Your task to perform on an android device: Open internet settings Image 0: 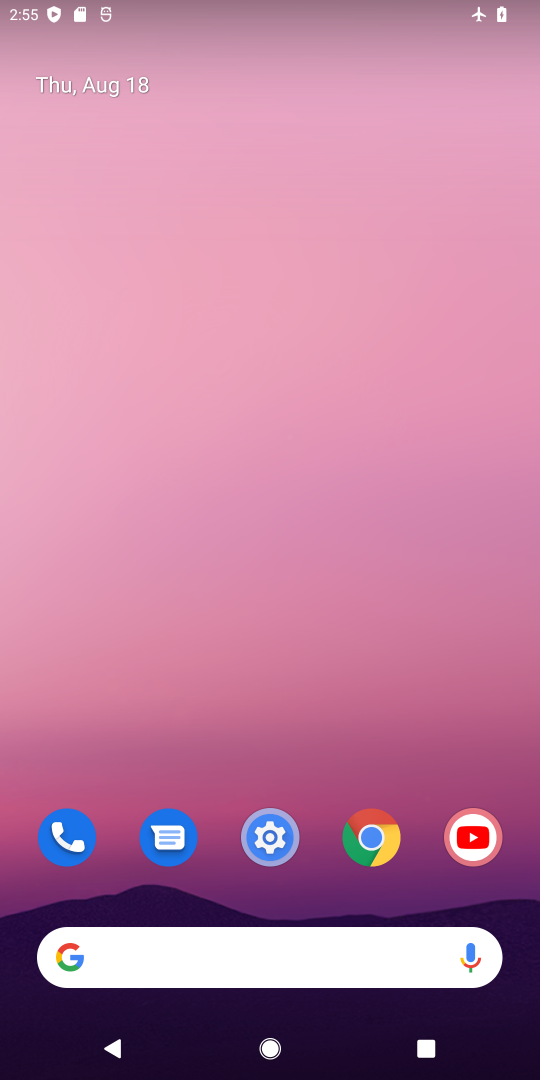
Step 0: drag from (314, 818) to (351, 90)
Your task to perform on an android device: Open internet settings Image 1: 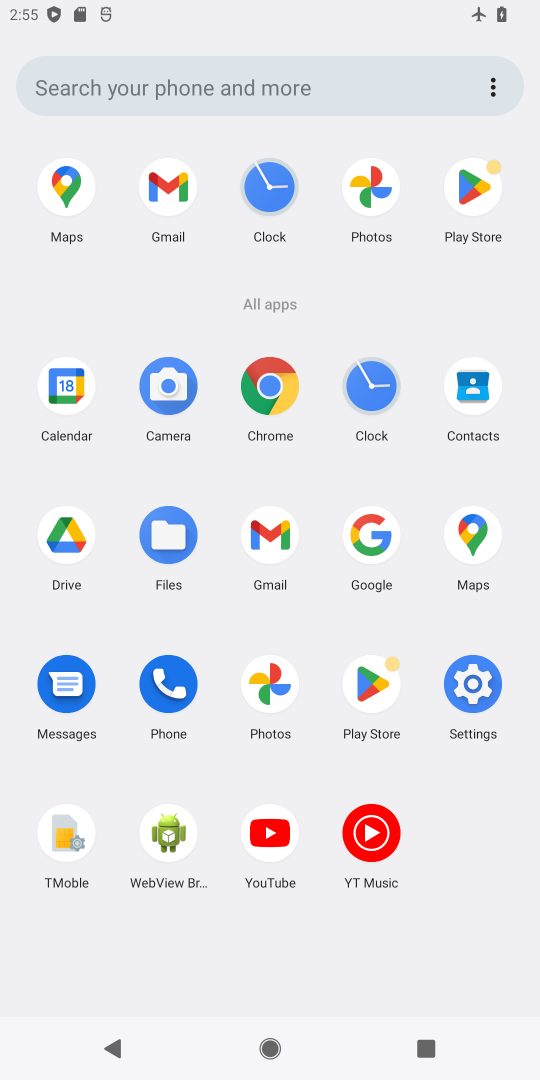
Step 1: click (479, 696)
Your task to perform on an android device: Open internet settings Image 2: 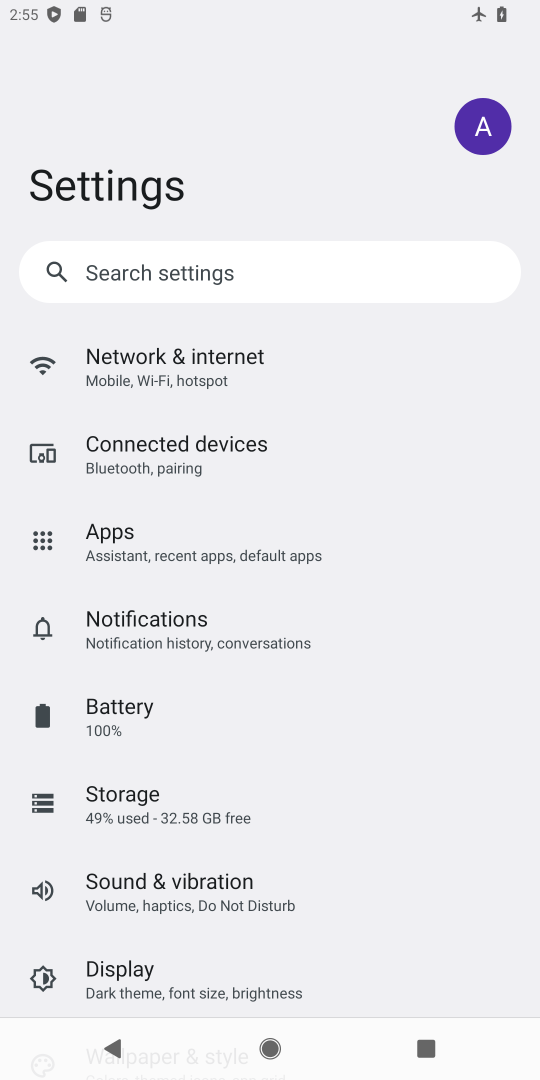
Step 2: click (208, 355)
Your task to perform on an android device: Open internet settings Image 3: 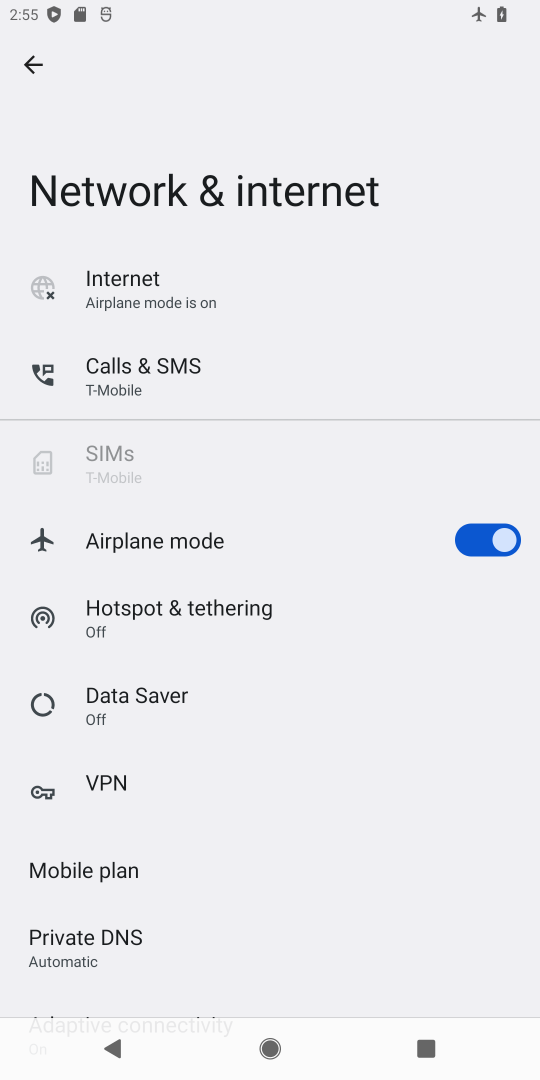
Step 3: click (158, 268)
Your task to perform on an android device: Open internet settings Image 4: 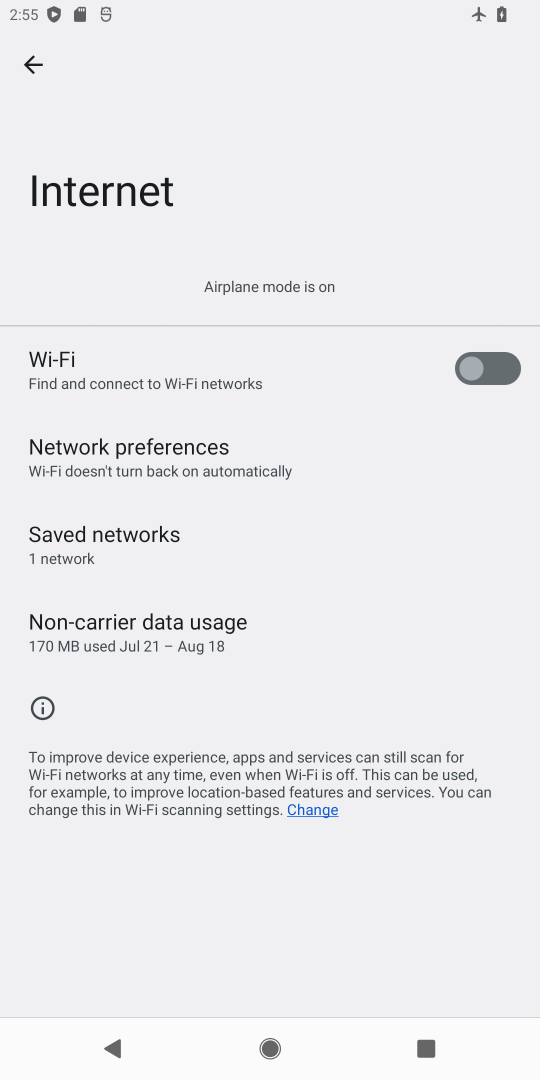
Step 4: task complete